Your task to perform on an android device: Go to Wikipedia Image 0: 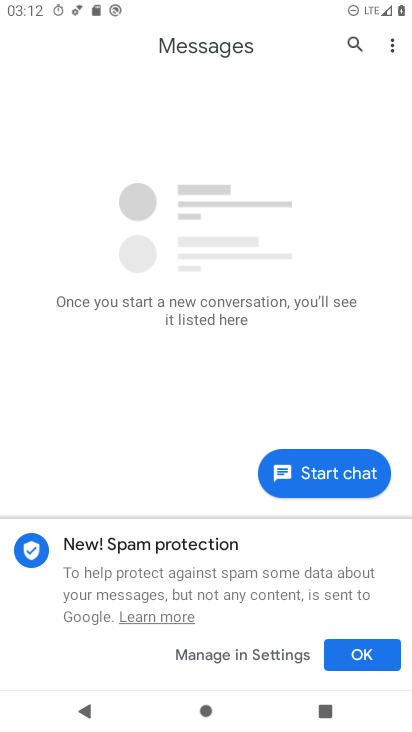
Step 0: press home button
Your task to perform on an android device: Go to Wikipedia Image 1: 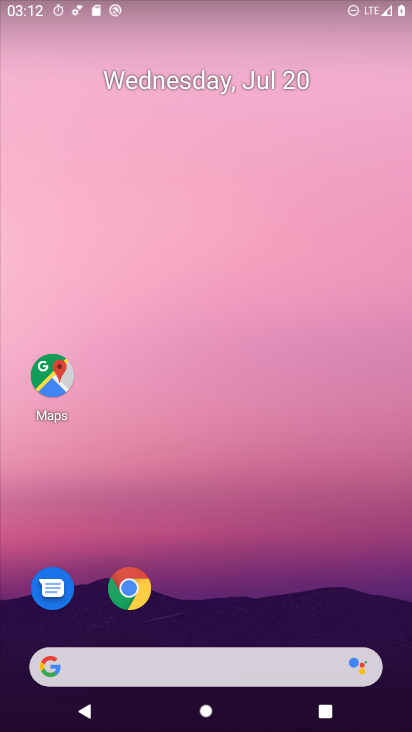
Step 1: drag from (182, 613) to (158, 7)
Your task to perform on an android device: Go to Wikipedia Image 2: 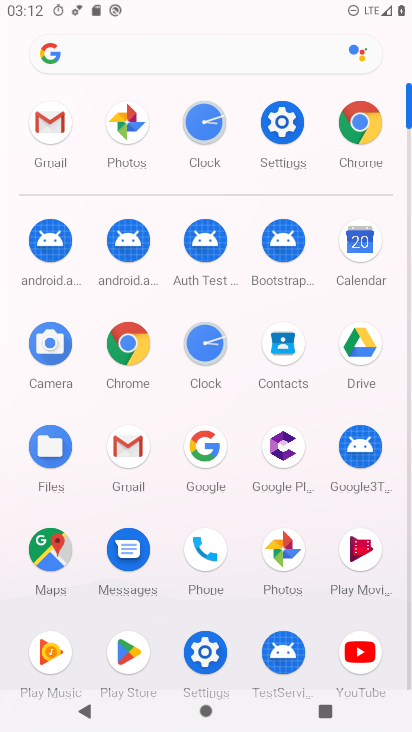
Step 2: click (128, 340)
Your task to perform on an android device: Go to Wikipedia Image 3: 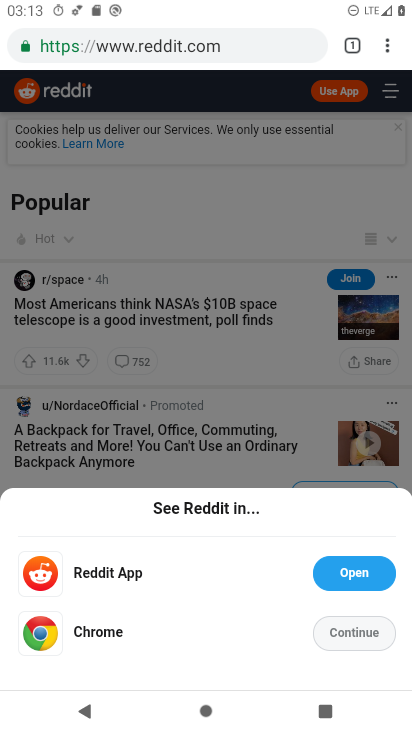
Step 3: click (325, 634)
Your task to perform on an android device: Go to Wikipedia Image 4: 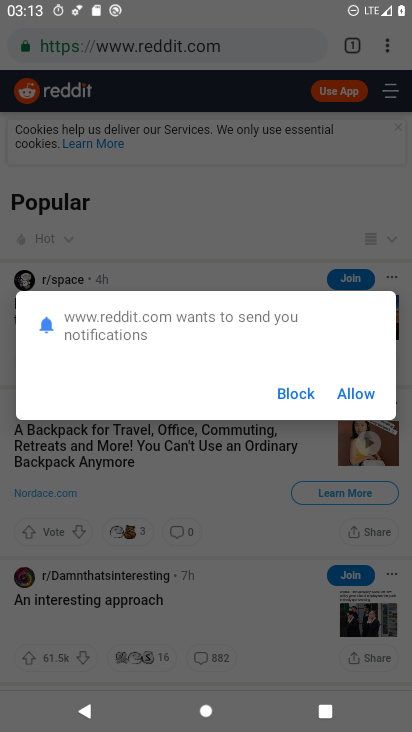
Step 4: click (356, 383)
Your task to perform on an android device: Go to Wikipedia Image 5: 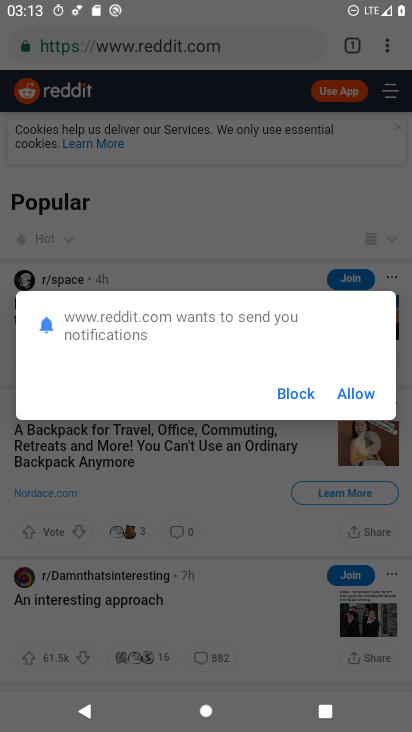
Step 5: click (356, 383)
Your task to perform on an android device: Go to Wikipedia Image 6: 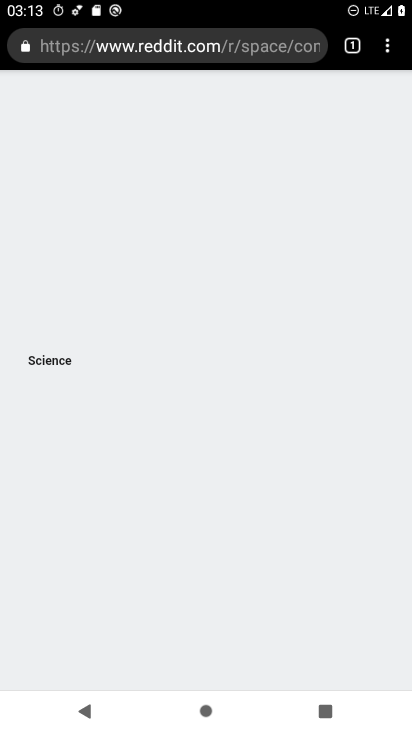
Step 6: click (349, 39)
Your task to perform on an android device: Go to Wikipedia Image 7: 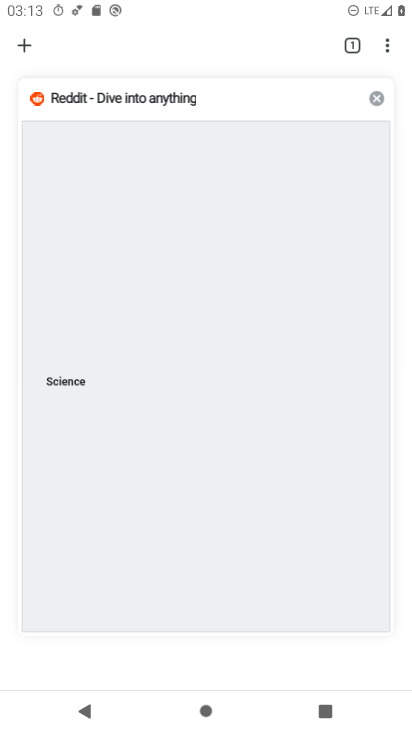
Step 7: click (14, 45)
Your task to perform on an android device: Go to Wikipedia Image 8: 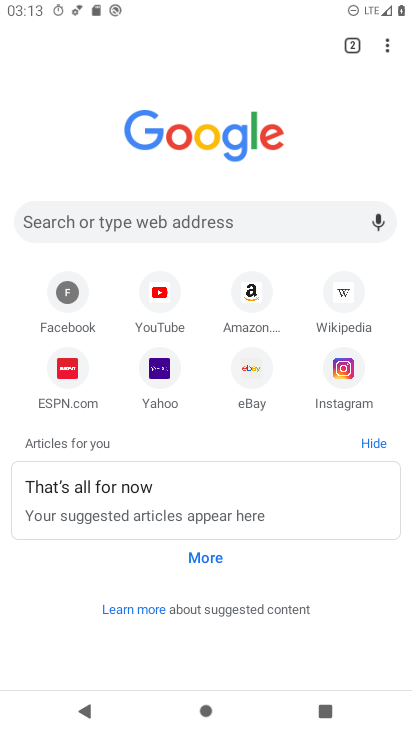
Step 8: click (336, 307)
Your task to perform on an android device: Go to Wikipedia Image 9: 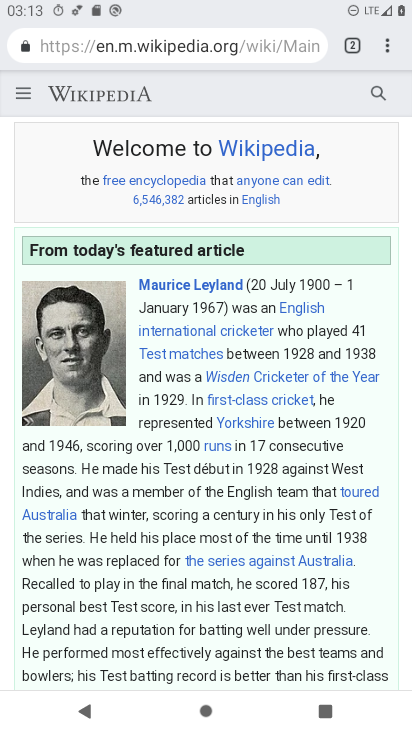
Step 9: task complete